Your task to perform on an android device: Open Yahoo.com Image 0: 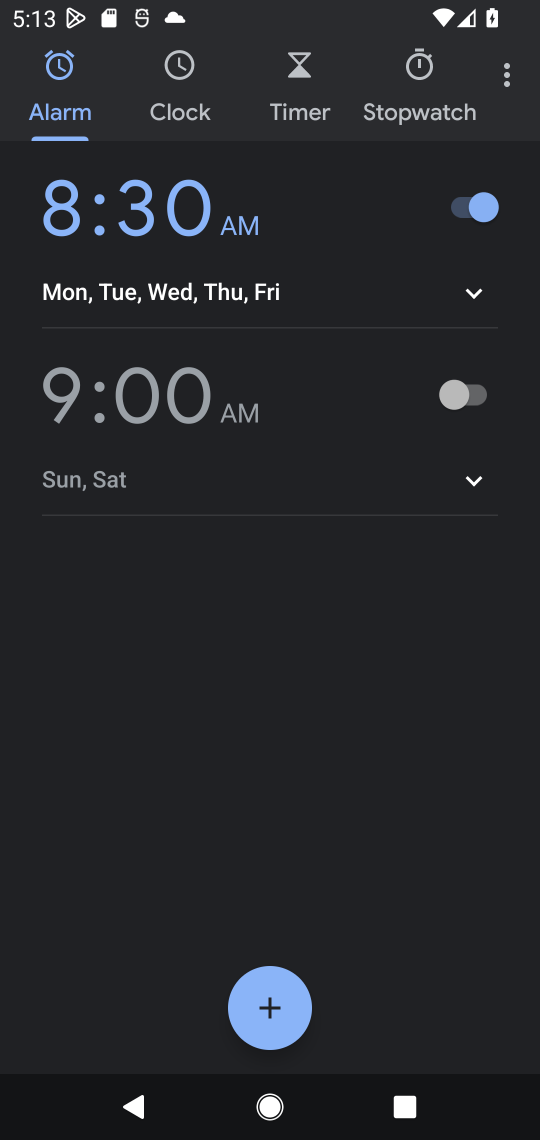
Step 0: press home button
Your task to perform on an android device: Open Yahoo.com Image 1: 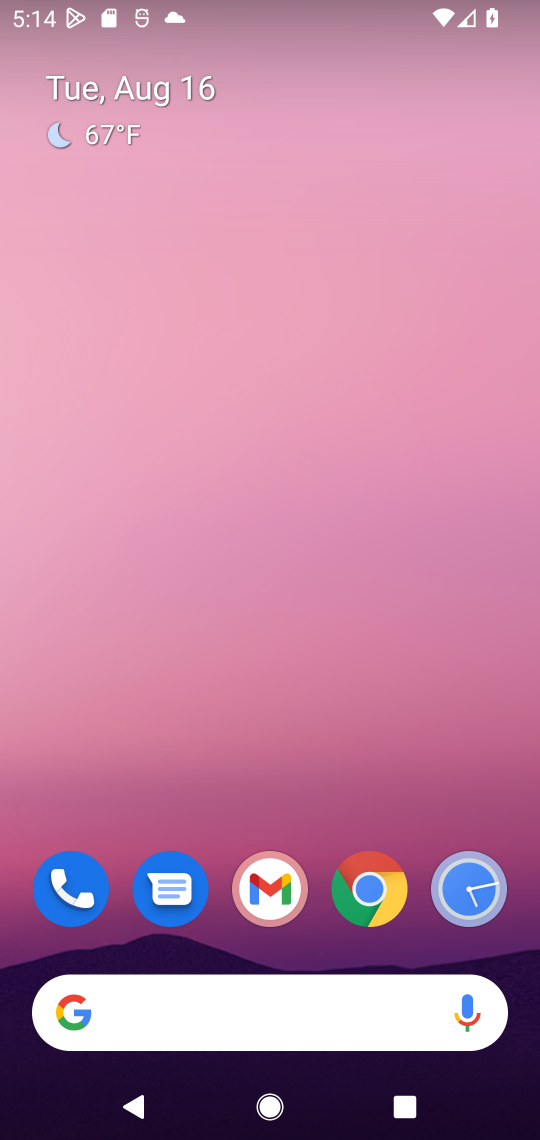
Step 1: click (376, 1006)
Your task to perform on an android device: Open Yahoo.com Image 2: 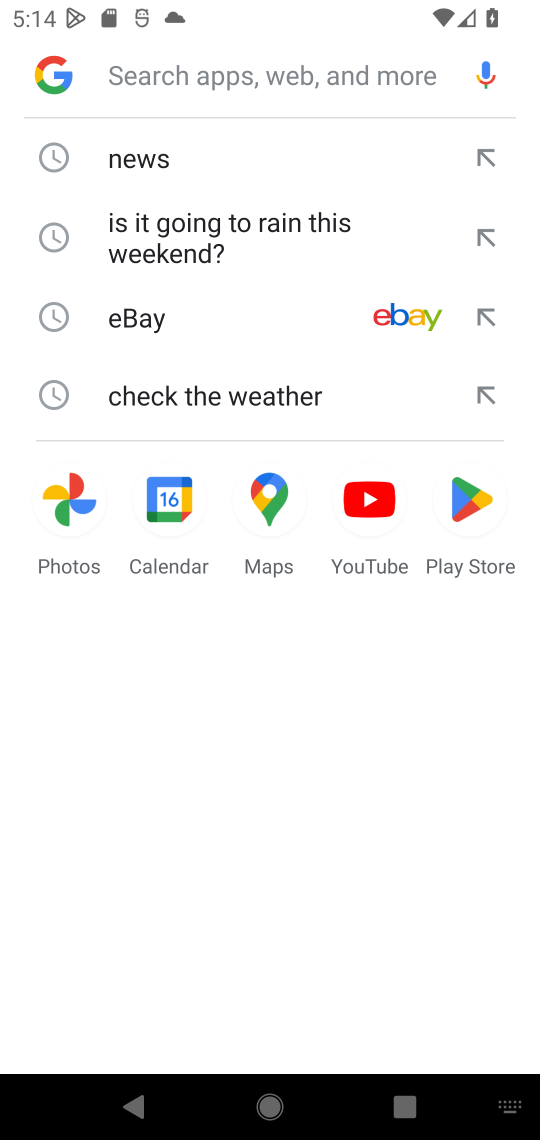
Step 2: type "Yahoo.com"
Your task to perform on an android device: Open Yahoo.com Image 3: 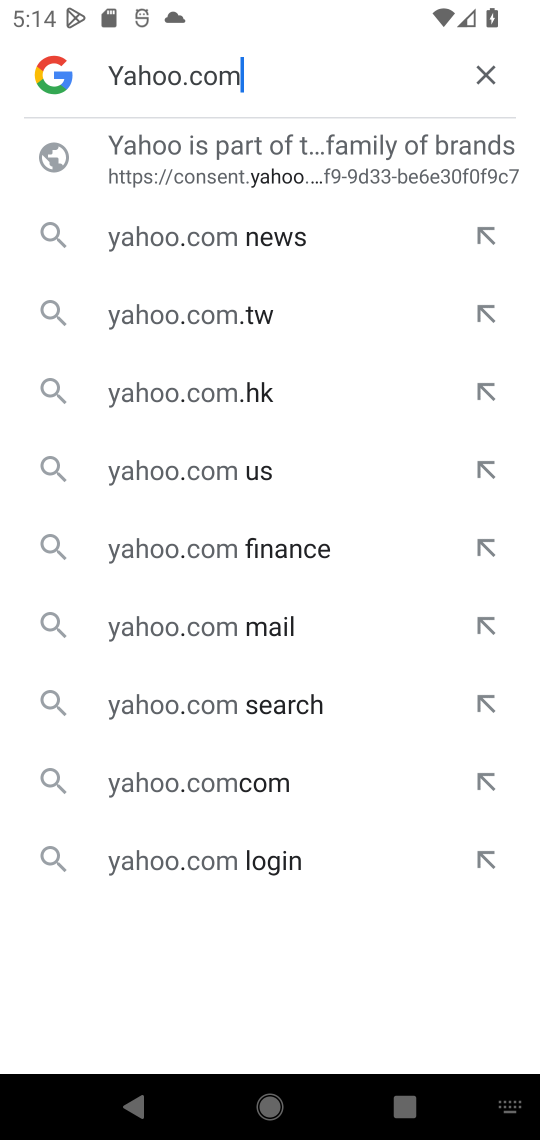
Step 3: task complete